Your task to perform on an android device: delete browsing data in the chrome app Image 0: 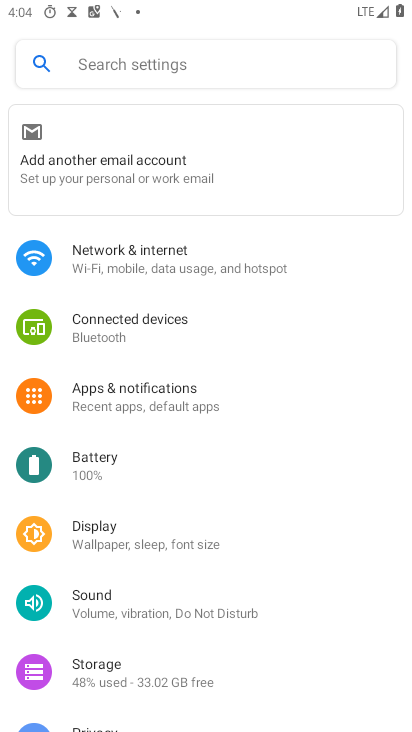
Step 0: press home button
Your task to perform on an android device: delete browsing data in the chrome app Image 1: 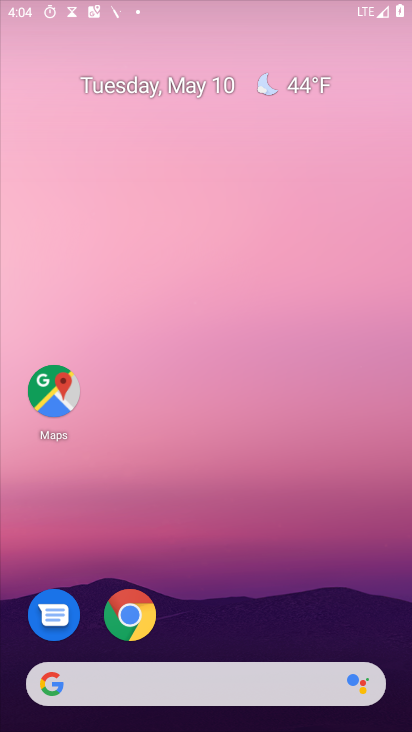
Step 1: drag from (256, 677) to (264, 32)
Your task to perform on an android device: delete browsing data in the chrome app Image 2: 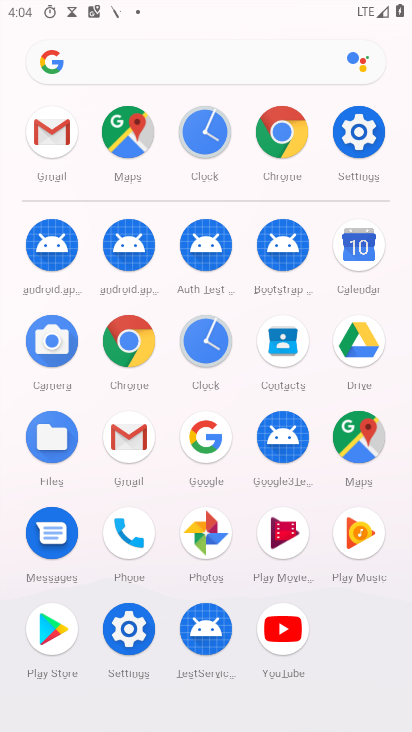
Step 2: click (134, 328)
Your task to perform on an android device: delete browsing data in the chrome app Image 3: 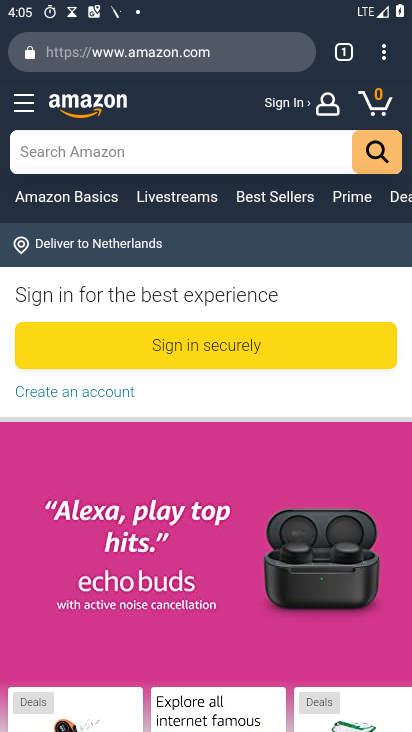
Step 3: click (378, 47)
Your task to perform on an android device: delete browsing data in the chrome app Image 4: 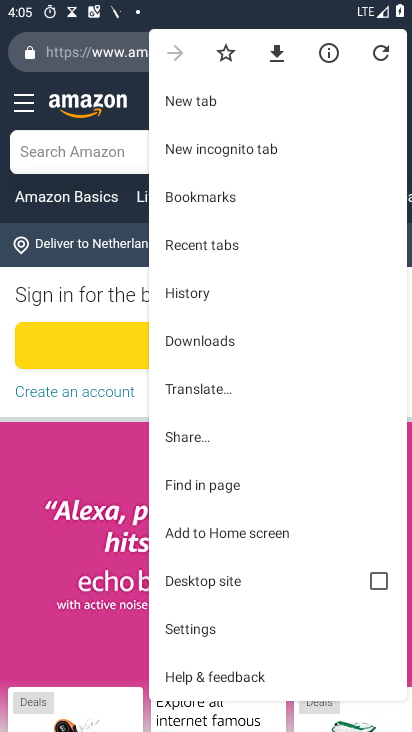
Step 4: drag from (269, 663) to (319, 165)
Your task to perform on an android device: delete browsing data in the chrome app Image 5: 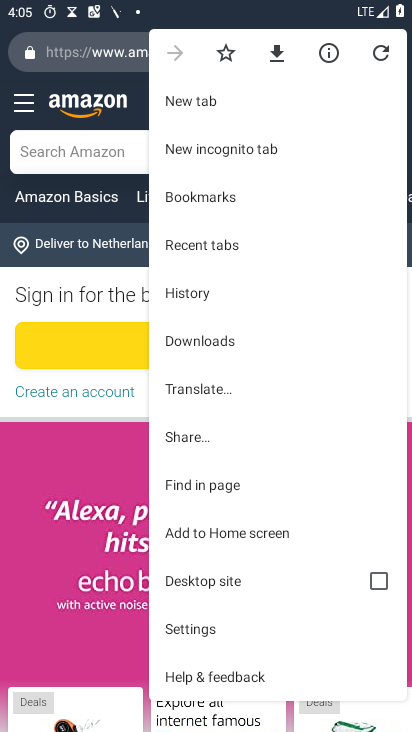
Step 5: click (212, 629)
Your task to perform on an android device: delete browsing data in the chrome app Image 6: 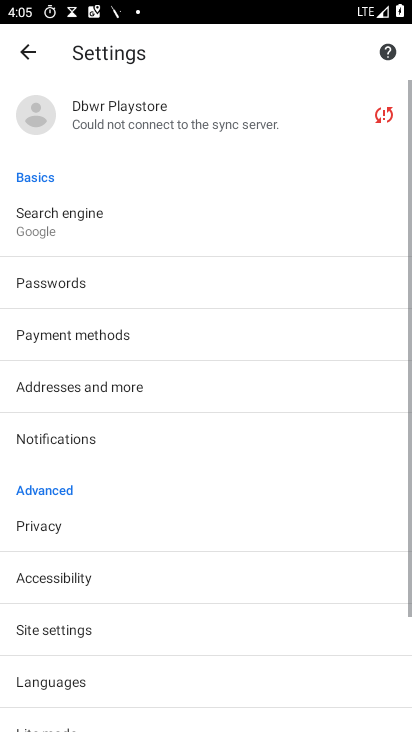
Step 6: click (101, 535)
Your task to perform on an android device: delete browsing data in the chrome app Image 7: 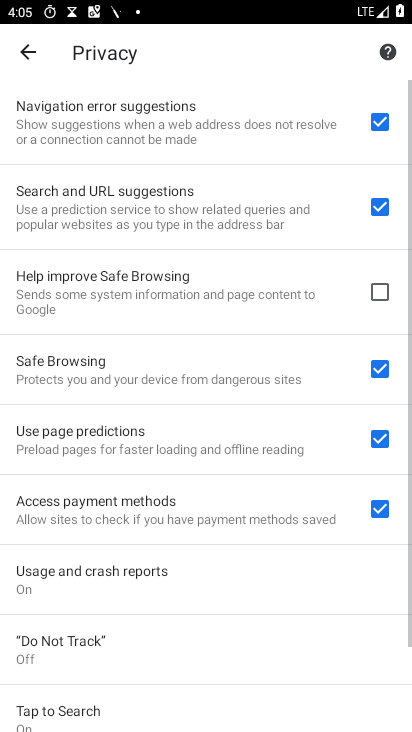
Step 7: drag from (165, 665) to (249, 128)
Your task to perform on an android device: delete browsing data in the chrome app Image 8: 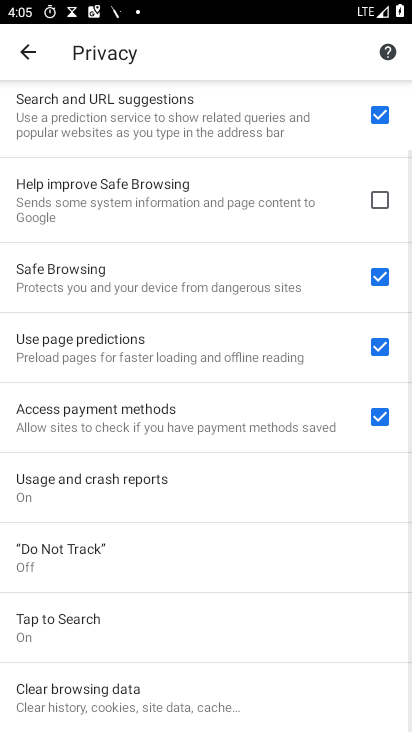
Step 8: click (218, 699)
Your task to perform on an android device: delete browsing data in the chrome app Image 9: 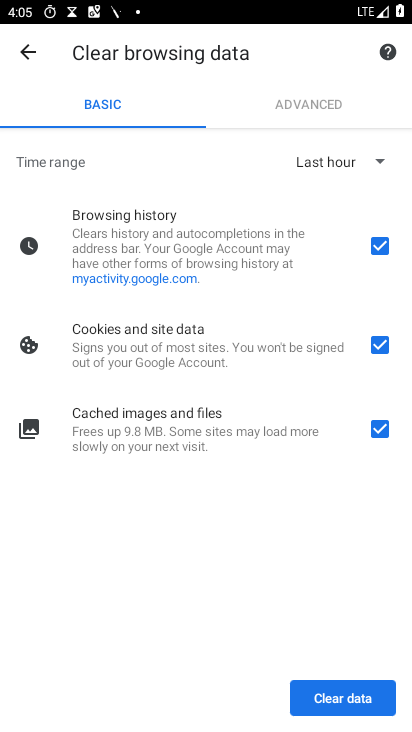
Step 9: click (356, 705)
Your task to perform on an android device: delete browsing data in the chrome app Image 10: 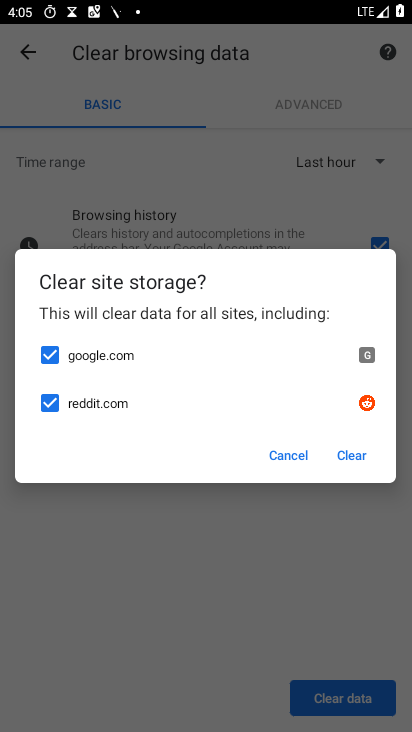
Step 10: click (351, 456)
Your task to perform on an android device: delete browsing data in the chrome app Image 11: 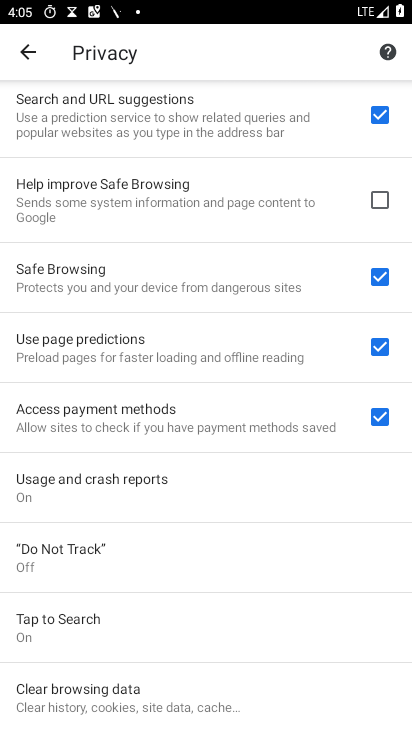
Step 11: task complete